Your task to perform on an android device: Is it going to rain this weekend? Image 0: 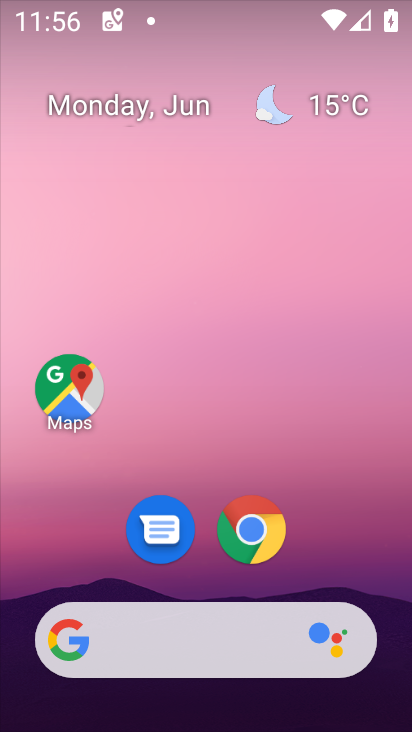
Step 0: click (355, 106)
Your task to perform on an android device: Is it going to rain this weekend? Image 1: 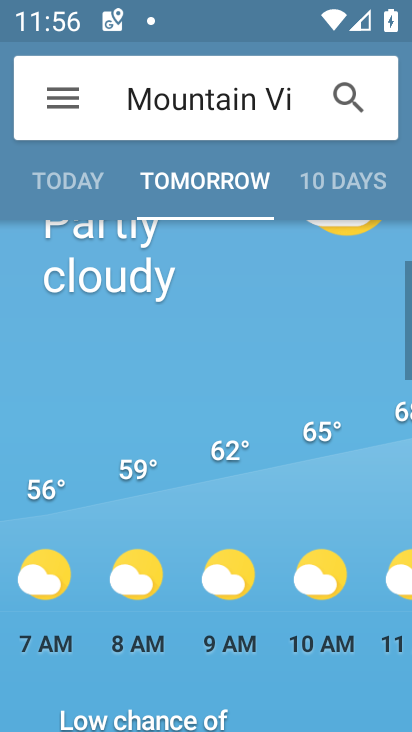
Step 1: click (353, 194)
Your task to perform on an android device: Is it going to rain this weekend? Image 2: 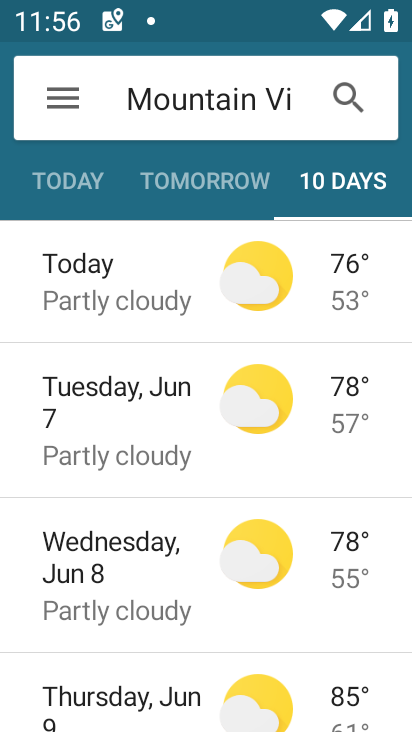
Step 2: task complete